Your task to perform on an android device: Open sound settings Image 0: 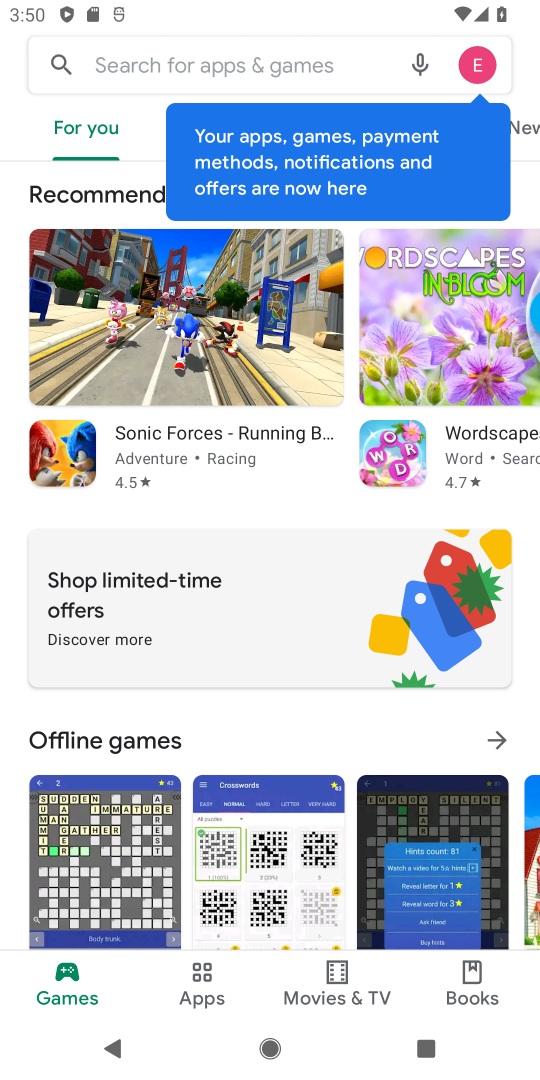
Step 0: press home button
Your task to perform on an android device: Open sound settings Image 1: 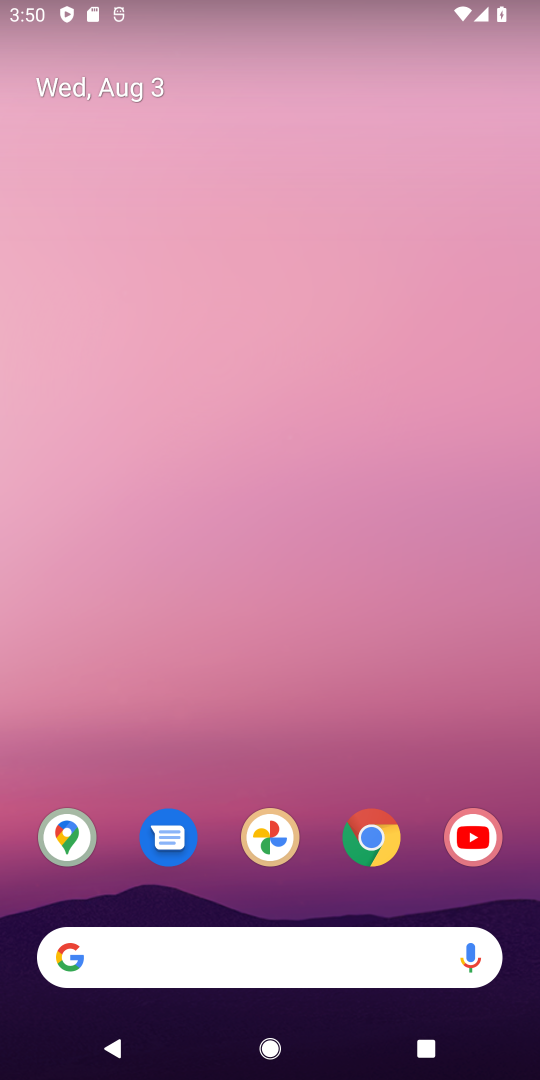
Step 1: drag from (423, 886) to (390, 69)
Your task to perform on an android device: Open sound settings Image 2: 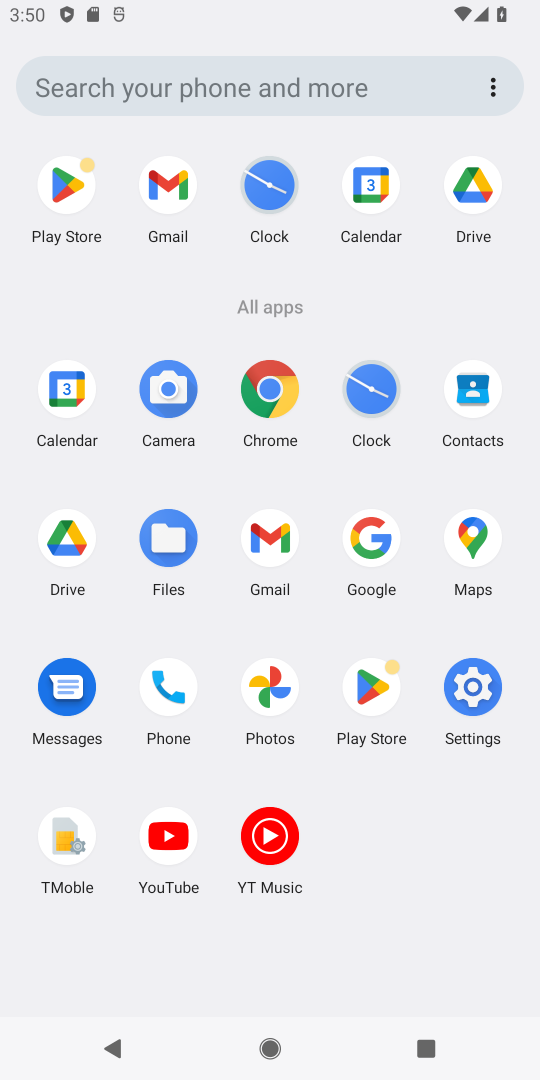
Step 2: click (473, 688)
Your task to perform on an android device: Open sound settings Image 3: 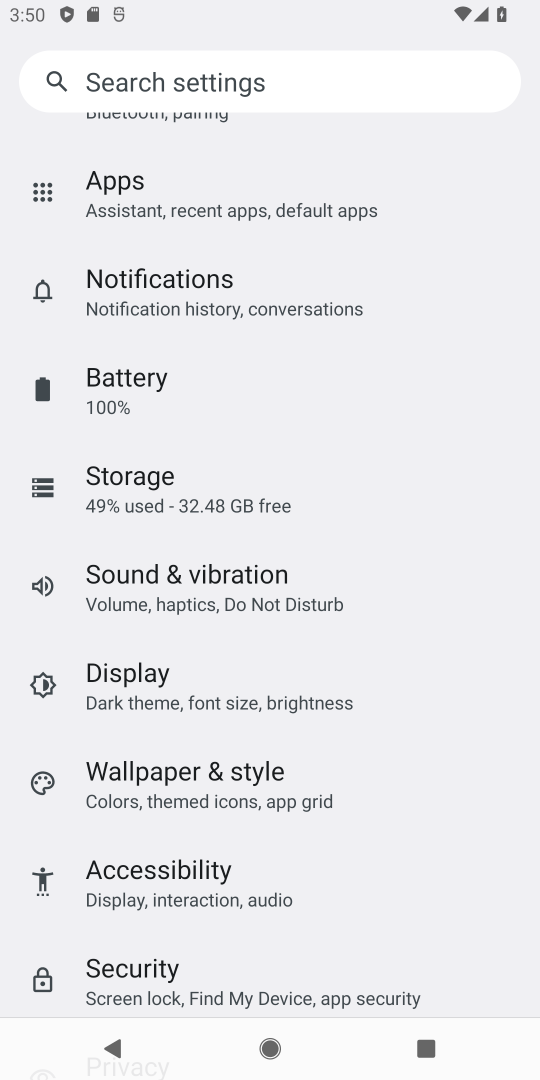
Step 3: click (117, 587)
Your task to perform on an android device: Open sound settings Image 4: 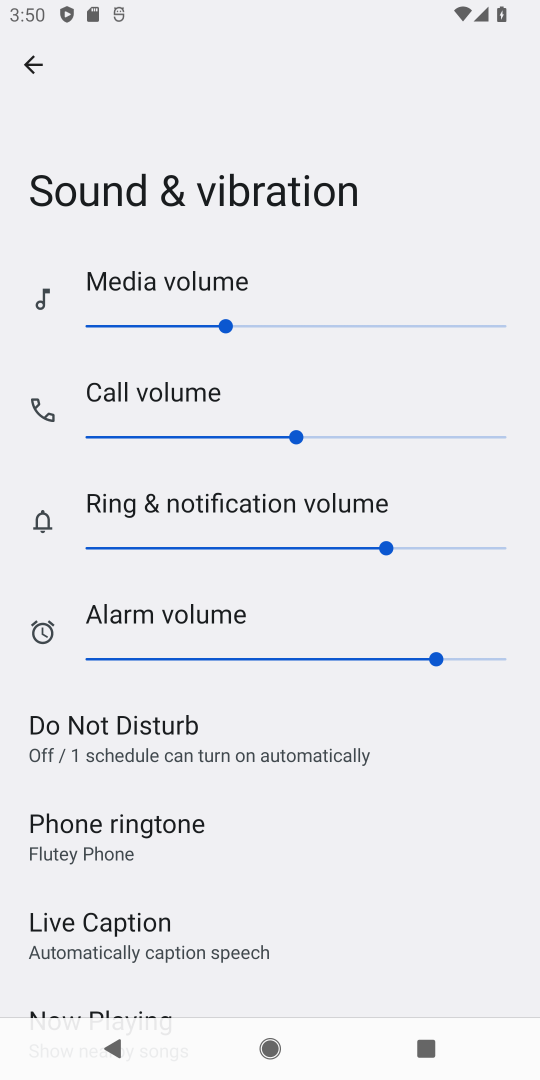
Step 4: task complete